Your task to perform on an android device: Open my contact list Image 0: 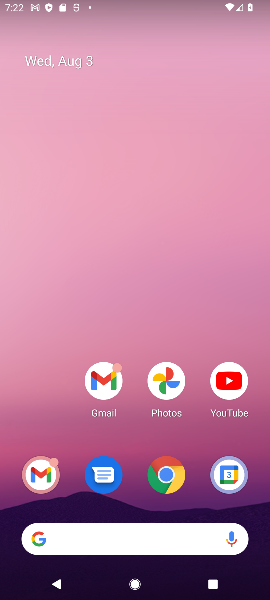
Step 0: drag from (149, 334) to (121, 86)
Your task to perform on an android device: Open my contact list Image 1: 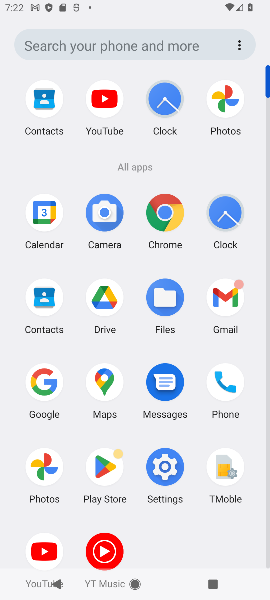
Step 1: click (47, 300)
Your task to perform on an android device: Open my contact list Image 2: 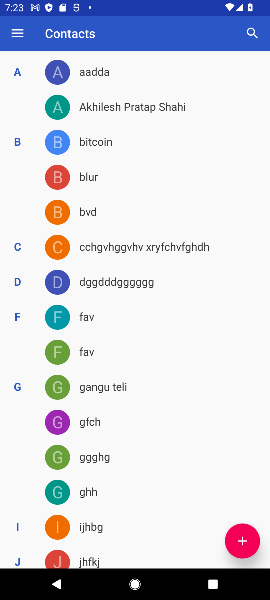
Step 2: task complete